Your task to perform on an android device: Go to CNN.com Image 0: 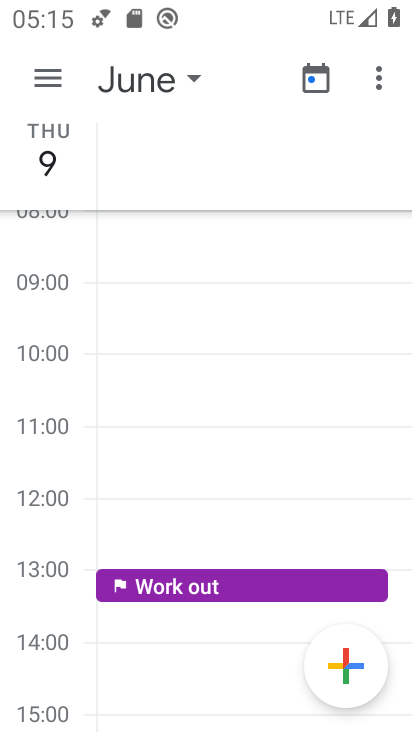
Step 0: press home button
Your task to perform on an android device: Go to CNN.com Image 1: 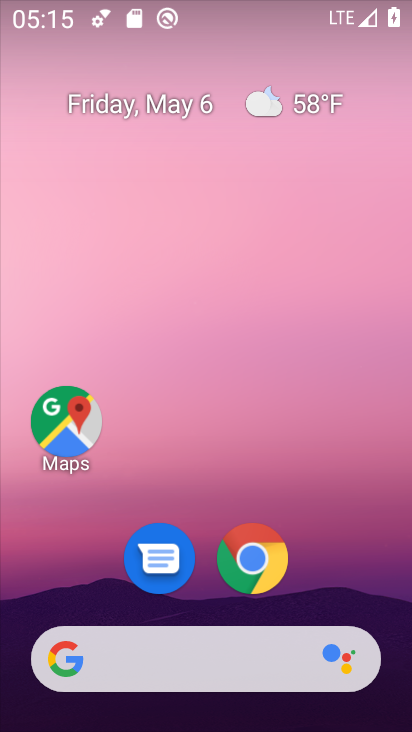
Step 1: drag from (329, 600) to (353, 96)
Your task to perform on an android device: Go to CNN.com Image 2: 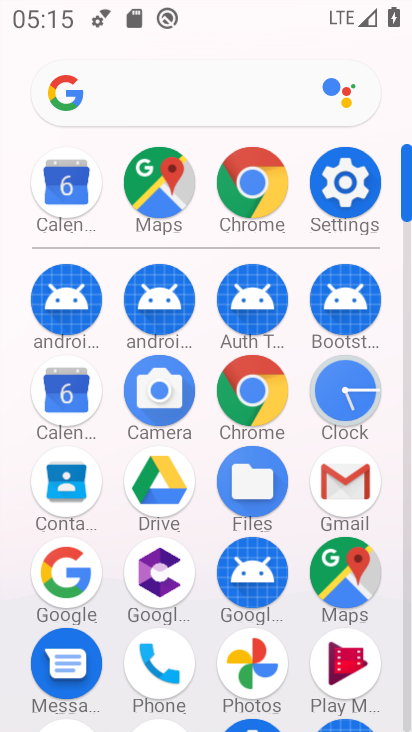
Step 2: click (268, 408)
Your task to perform on an android device: Go to CNN.com Image 3: 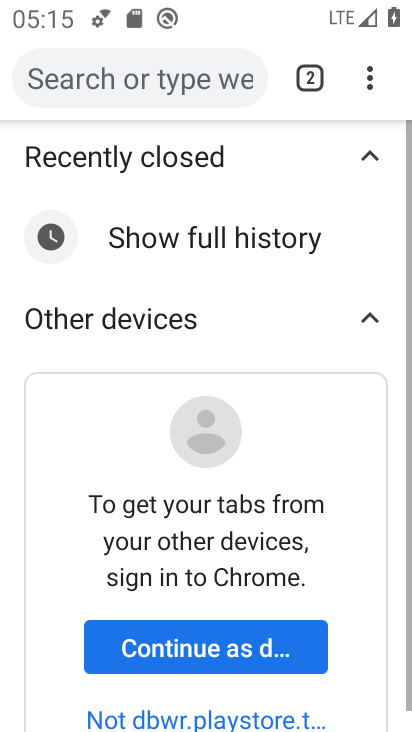
Step 3: click (244, 80)
Your task to perform on an android device: Go to CNN.com Image 4: 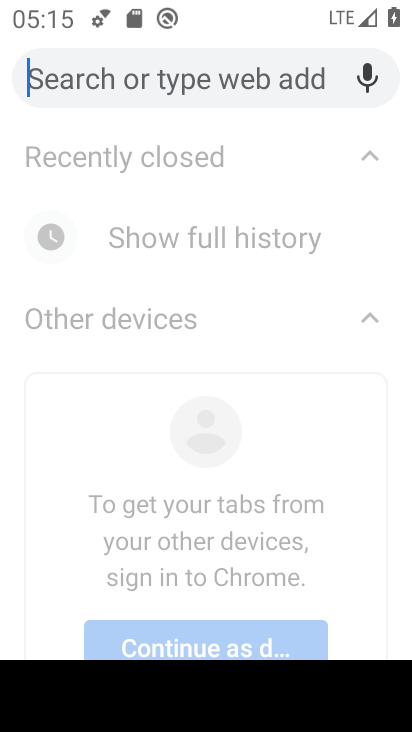
Step 4: type "cnn.com"
Your task to perform on an android device: Go to CNN.com Image 5: 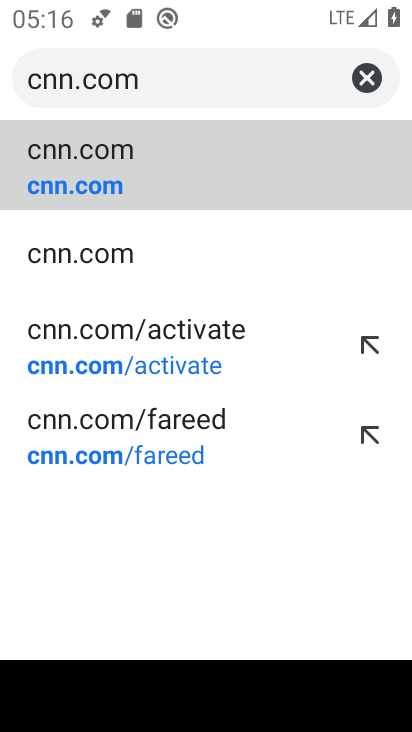
Step 5: click (178, 184)
Your task to perform on an android device: Go to CNN.com Image 6: 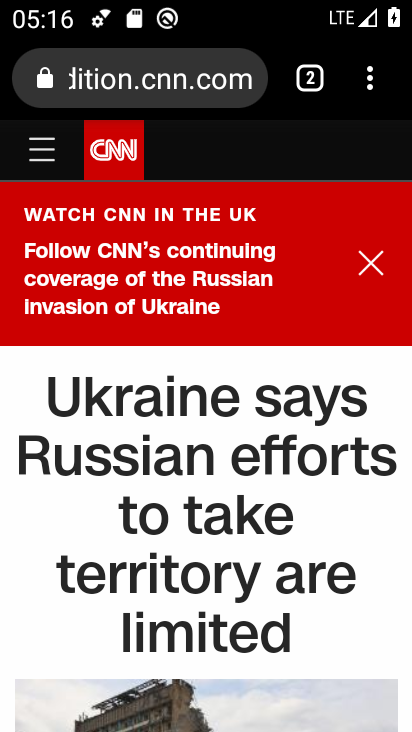
Step 6: task complete